Your task to perform on an android device: turn off location history Image 0: 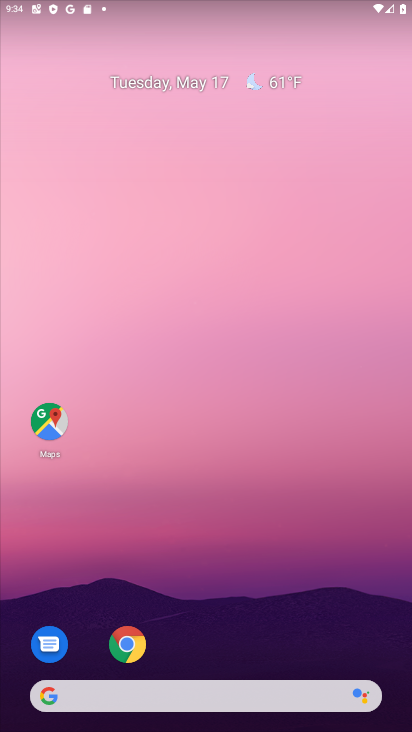
Step 0: drag from (235, 634) to (287, 84)
Your task to perform on an android device: turn off location history Image 1: 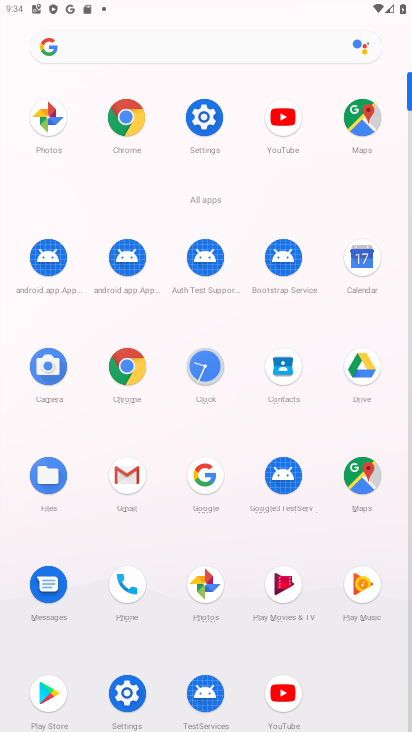
Step 1: click (200, 97)
Your task to perform on an android device: turn off location history Image 2: 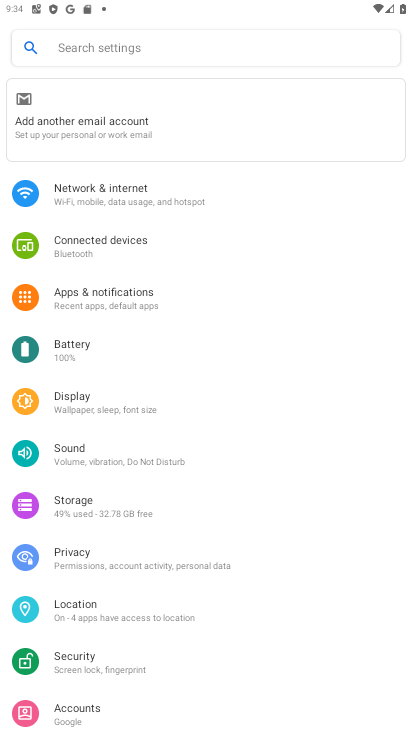
Step 2: click (74, 611)
Your task to perform on an android device: turn off location history Image 3: 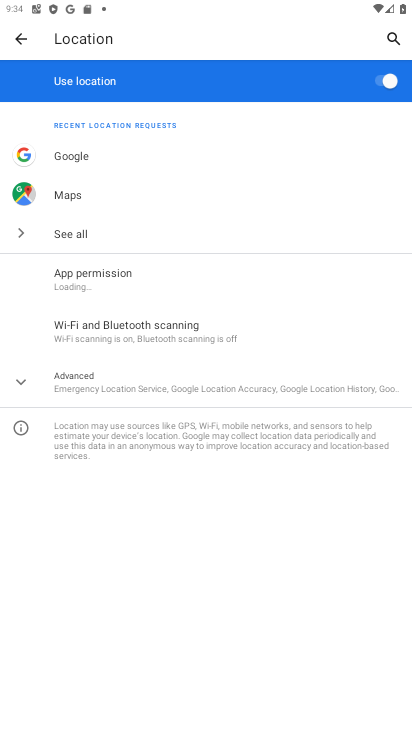
Step 3: click (138, 388)
Your task to perform on an android device: turn off location history Image 4: 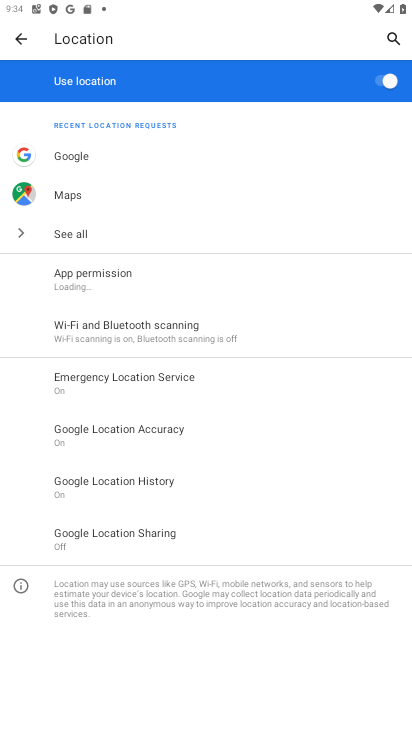
Step 4: click (203, 482)
Your task to perform on an android device: turn off location history Image 5: 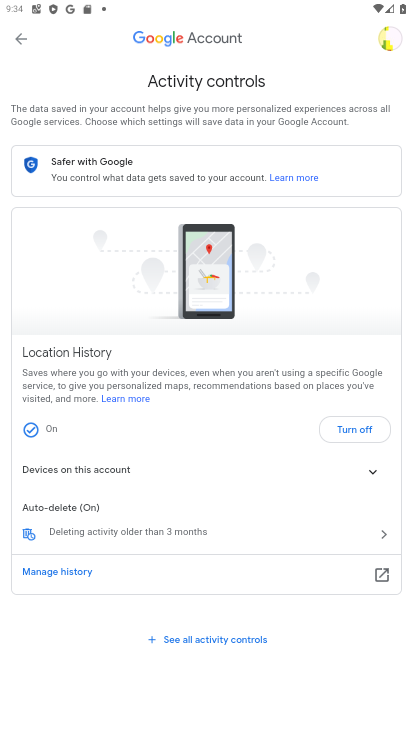
Step 5: click (357, 438)
Your task to perform on an android device: turn off location history Image 6: 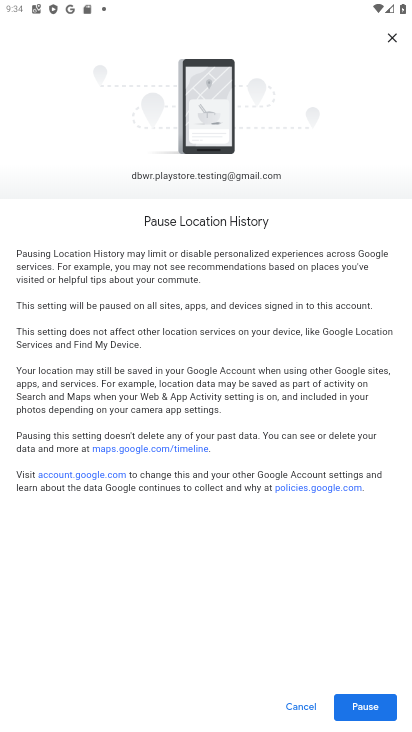
Step 6: click (364, 705)
Your task to perform on an android device: turn off location history Image 7: 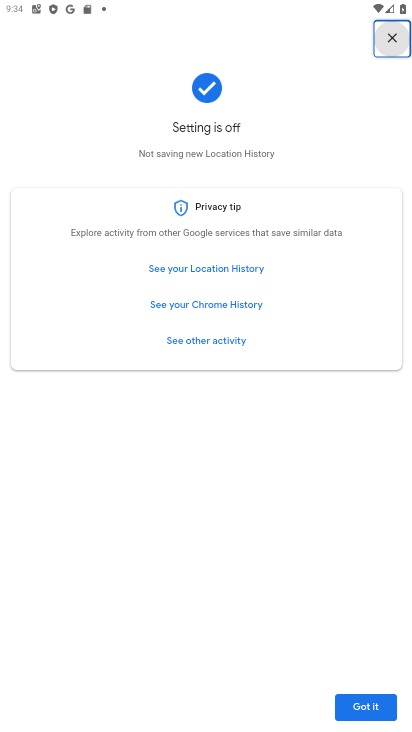
Step 7: click (364, 705)
Your task to perform on an android device: turn off location history Image 8: 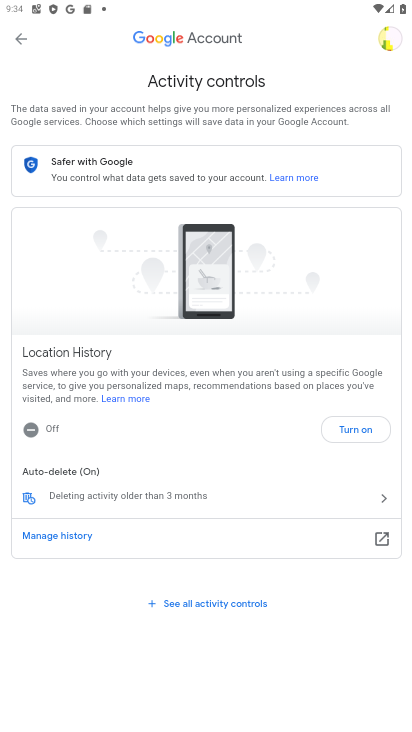
Step 8: task complete